Your task to perform on an android device: delete browsing data in the chrome app Image 0: 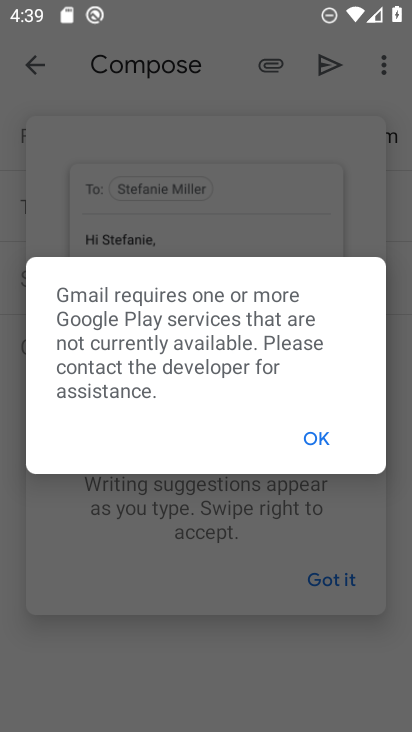
Step 0: press home button
Your task to perform on an android device: delete browsing data in the chrome app Image 1: 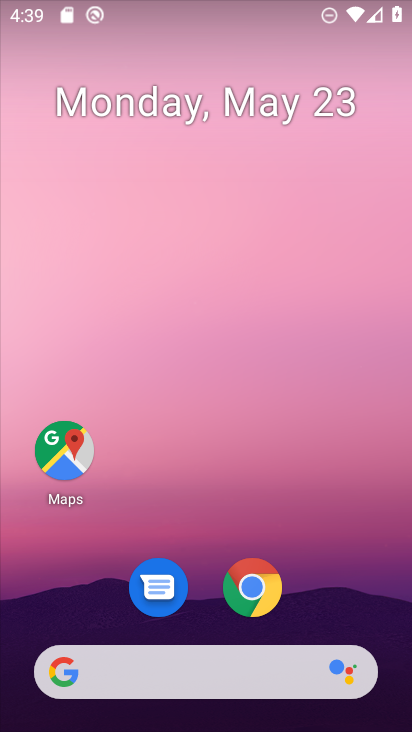
Step 1: click (252, 583)
Your task to perform on an android device: delete browsing data in the chrome app Image 2: 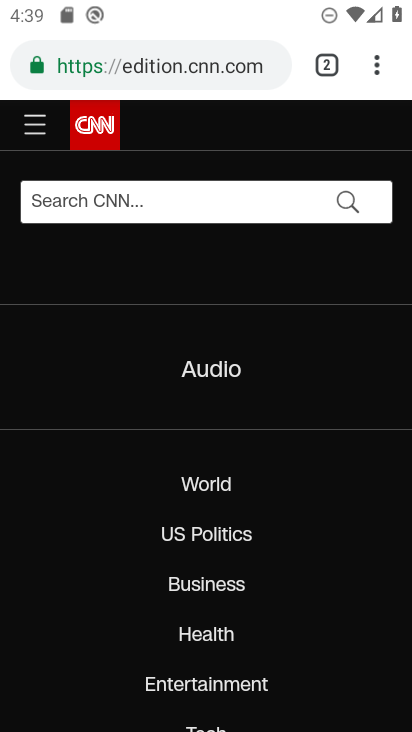
Step 2: click (378, 64)
Your task to perform on an android device: delete browsing data in the chrome app Image 3: 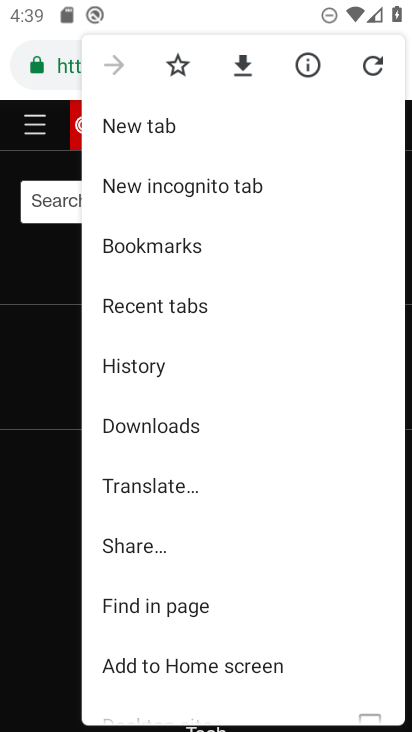
Step 3: drag from (192, 566) to (199, 409)
Your task to perform on an android device: delete browsing data in the chrome app Image 4: 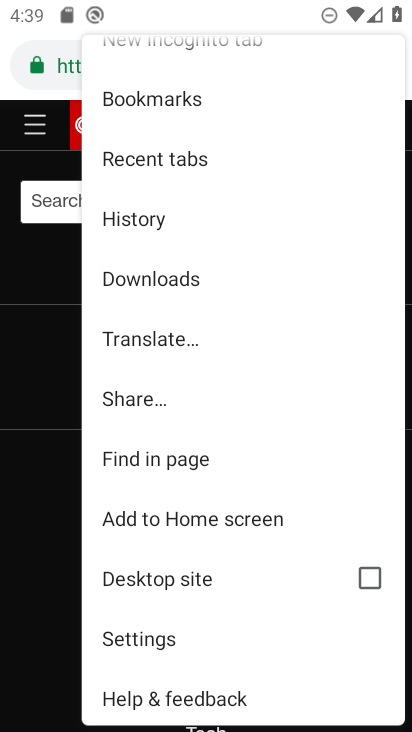
Step 4: click (163, 227)
Your task to perform on an android device: delete browsing data in the chrome app Image 5: 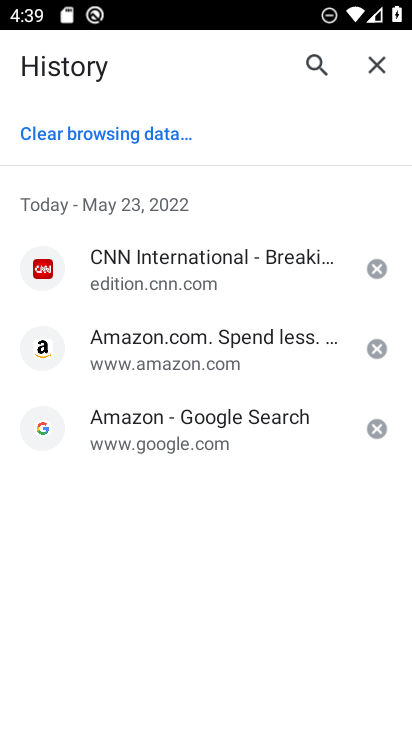
Step 5: click (111, 131)
Your task to perform on an android device: delete browsing data in the chrome app Image 6: 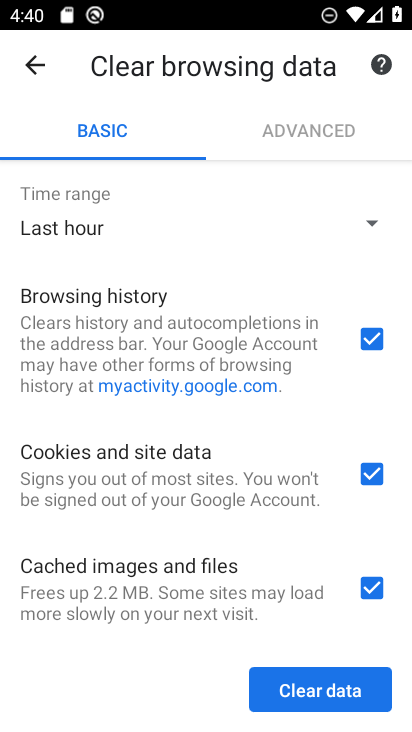
Step 6: drag from (239, 518) to (259, 266)
Your task to perform on an android device: delete browsing data in the chrome app Image 7: 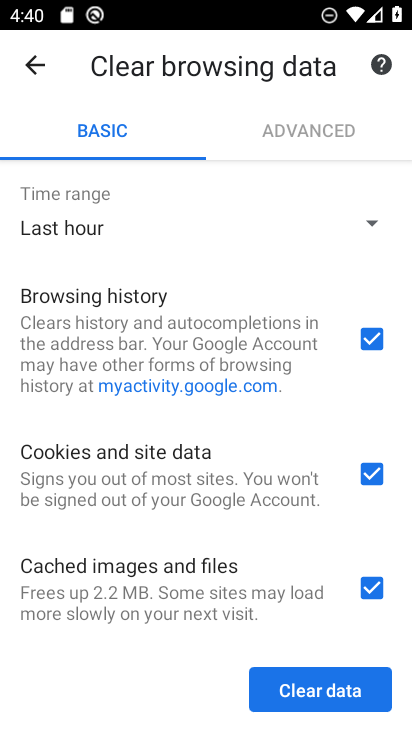
Step 7: click (302, 690)
Your task to perform on an android device: delete browsing data in the chrome app Image 8: 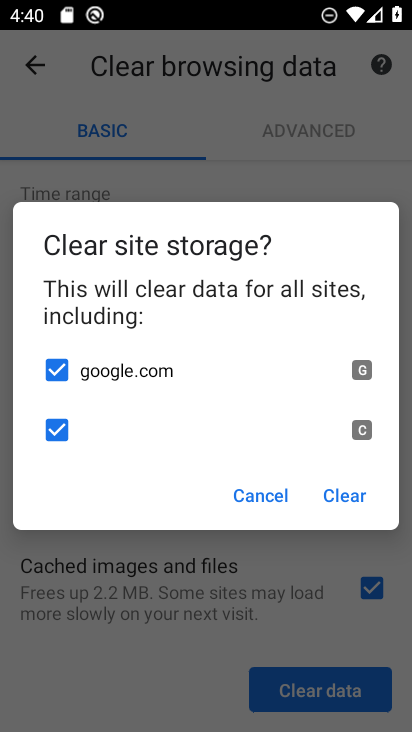
Step 8: click (340, 497)
Your task to perform on an android device: delete browsing data in the chrome app Image 9: 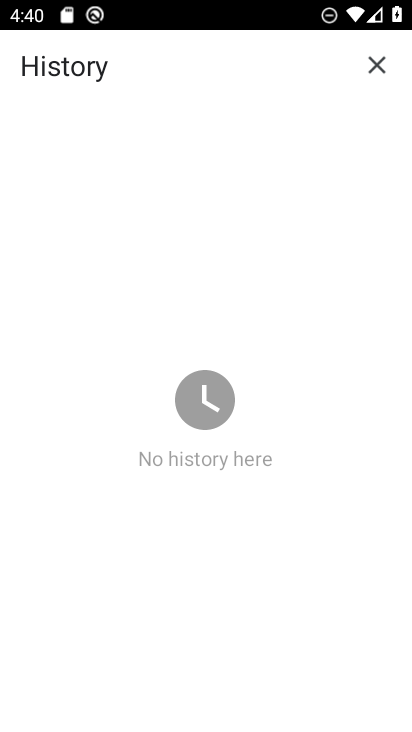
Step 9: task complete